Your task to perform on an android device: Go to Wikipedia Image 0: 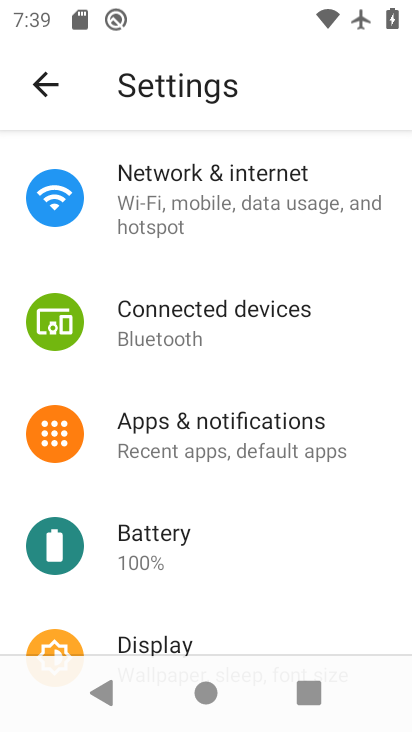
Step 0: press home button
Your task to perform on an android device: Go to Wikipedia Image 1: 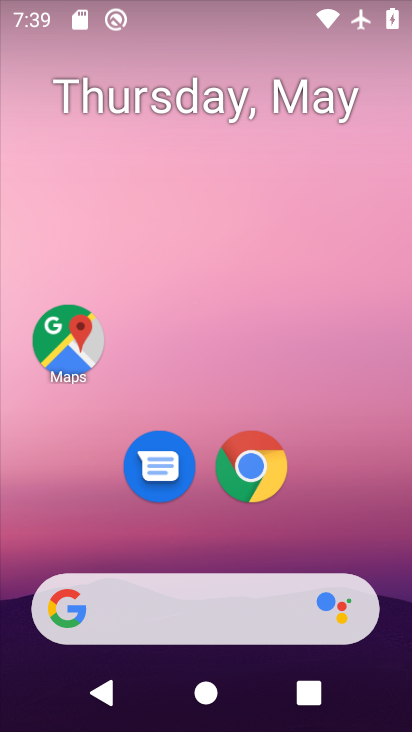
Step 1: click (237, 590)
Your task to perform on an android device: Go to Wikipedia Image 2: 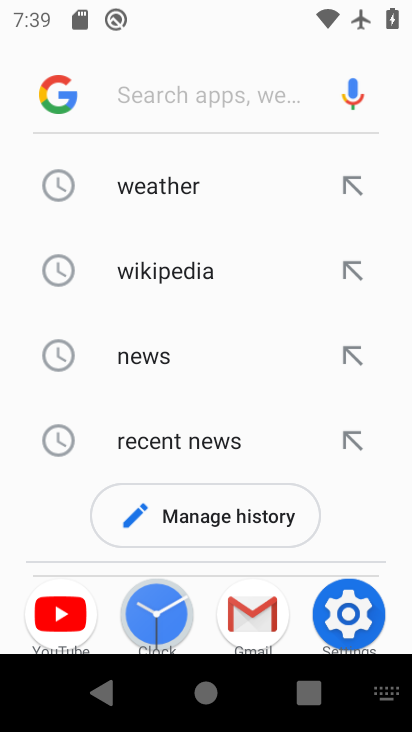
Step 2: type "wikiped"
Your task to perform on an android device: Go to Wikipedia Image 3: 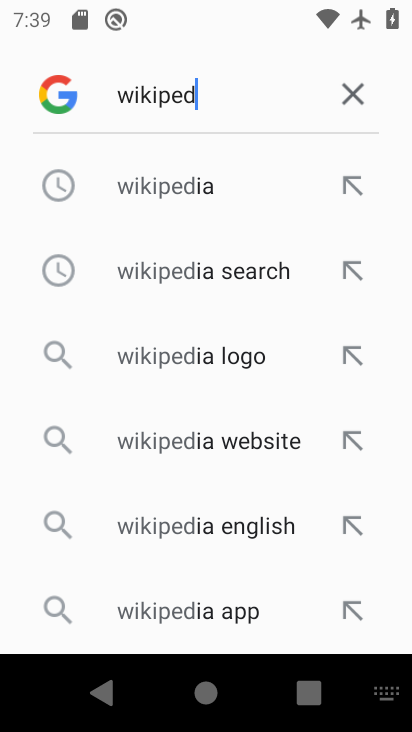
Step 3: click (197, 201)
Your task to perform on an android device: Go to Wikipedia Image 4: 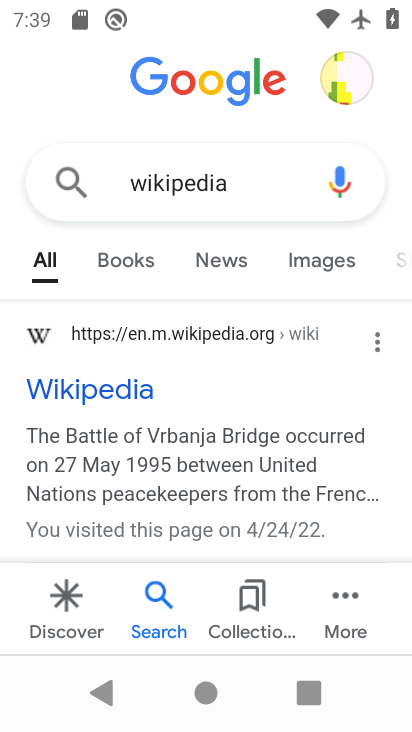
Step 4: click (40, 380)
Your task to perform on an android device: Go to Wikipedia Image 5: 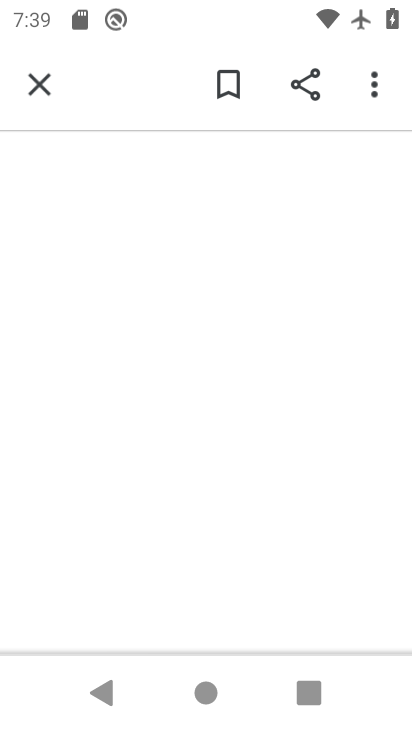
Step 5: task complete